Your task to perform on an android device: turn notification dots off Image 0: 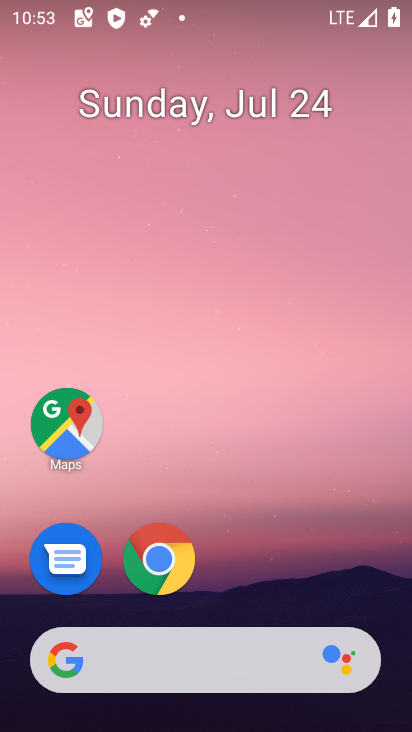
Step 0: drag from (274, 608) to (313, 7)
Your task to perform on an android device: turn notification dots off Image 1: 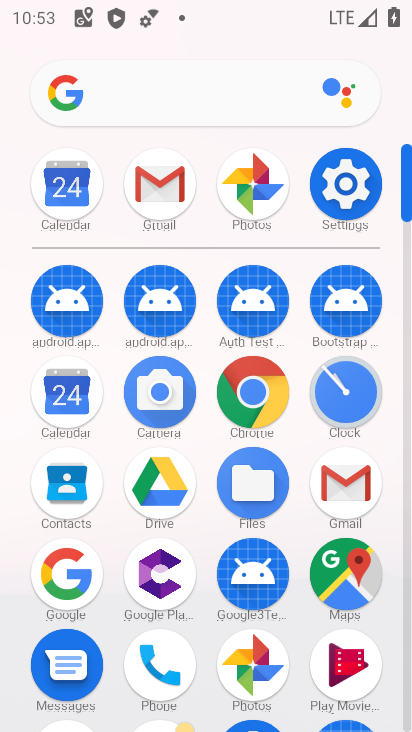
Step 1: click (349, 171)
Your task to perform on an android device: turn notification dots off Image 2: 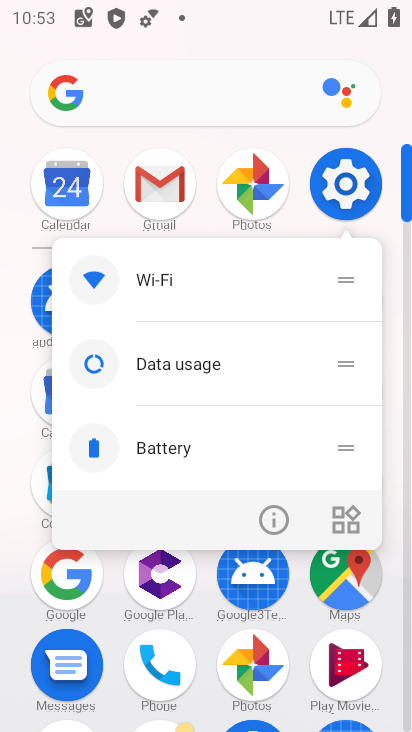
Step 2: click (336, 183)
Your task to perform on an android device: turn notification dots off Image 3: 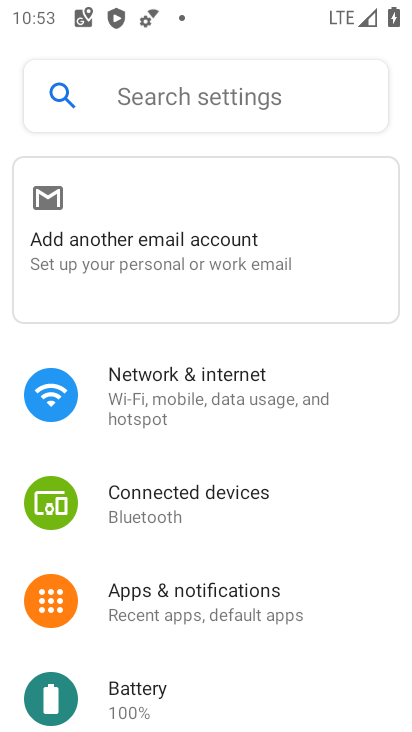
Step 3: click (188, 607)
Your task to perform on an android device: turn notification dots off Image 4: 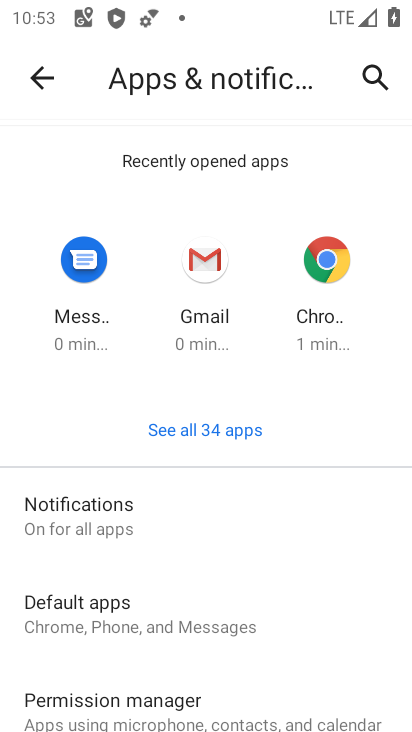
Step 4: click (115, 521)
Your task to perform on an android device: turn notification dots off Image 5: 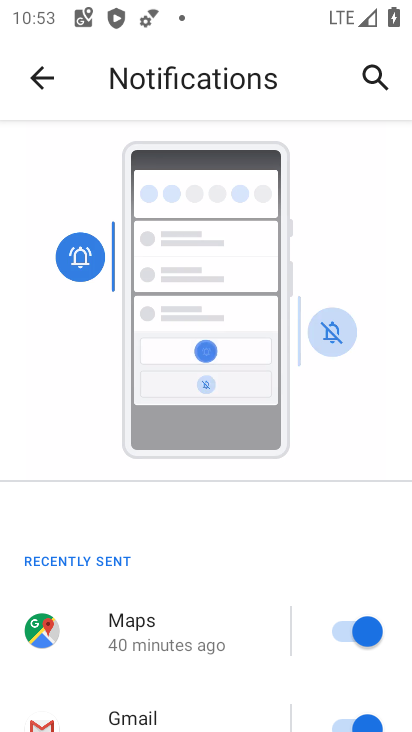
Step 5: drag from (197, 656) to (276, 19)
Your task to perform on an android device: turn notification dots off Image 6: 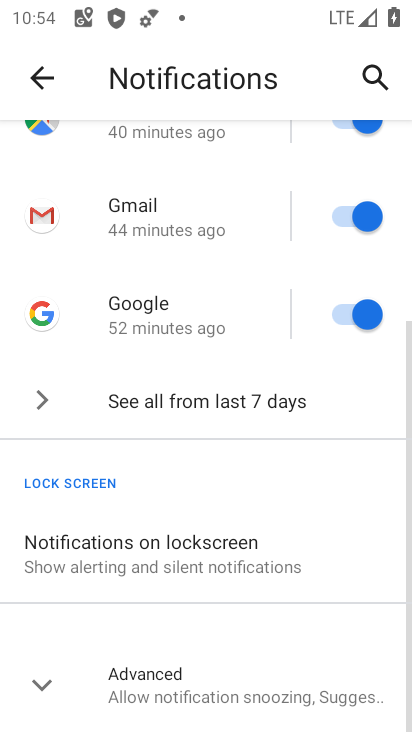
Step 6: drag from (173, 495) to (239, 5)
Your task to perform on an android device: turn notification dots off Image 7: 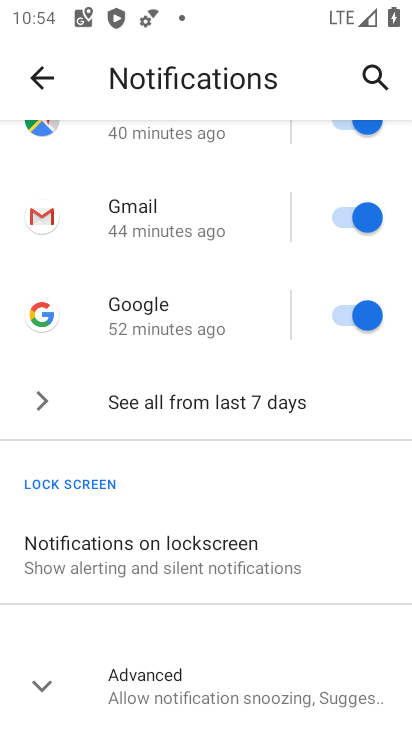
Step 7: click (167, 698)
Your task to perform on an android device: turn notification dots off Image 8: 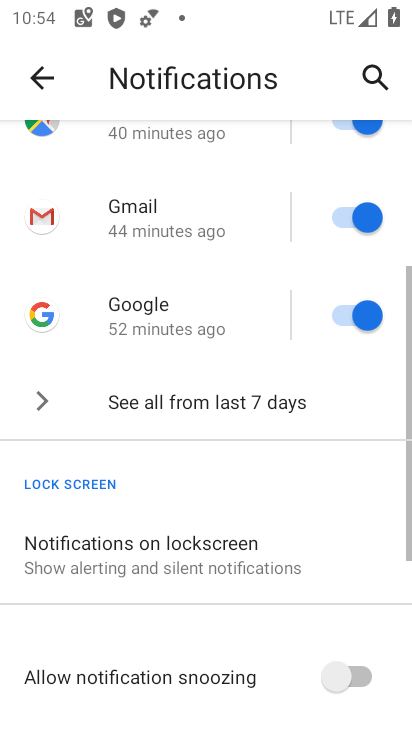
Step 8: drag from (174, 686) to (243, 90)
Your task to perform on an android device: turn notification dots off Image 9: 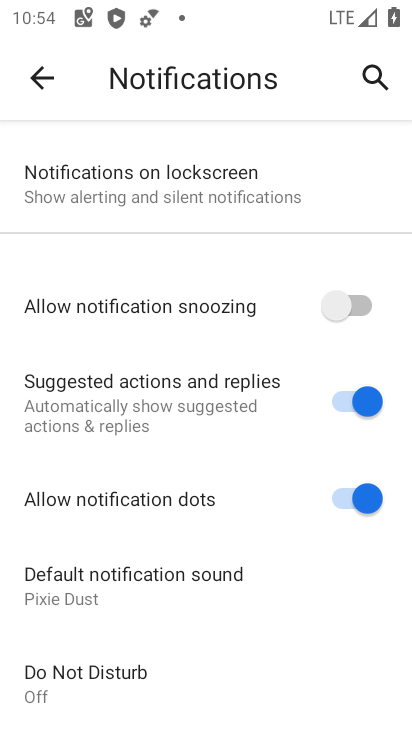
Step 9: click (366, 503)
Your task to perform on an android device: turn notification dots off Image 10: 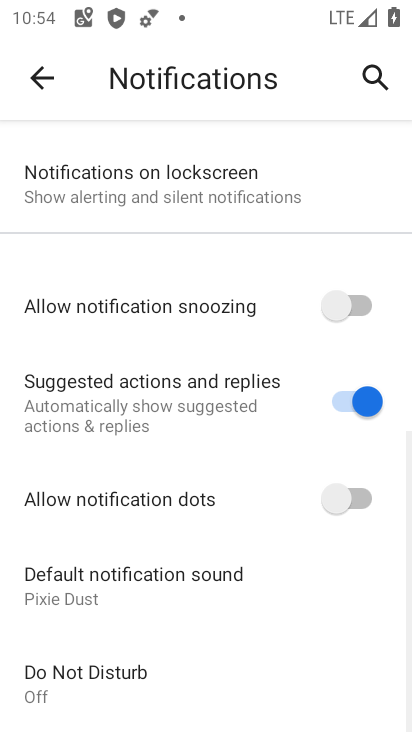
Step 10: task complete